Your task to perform on an android device: Open Maps and search for coffee Image 0: 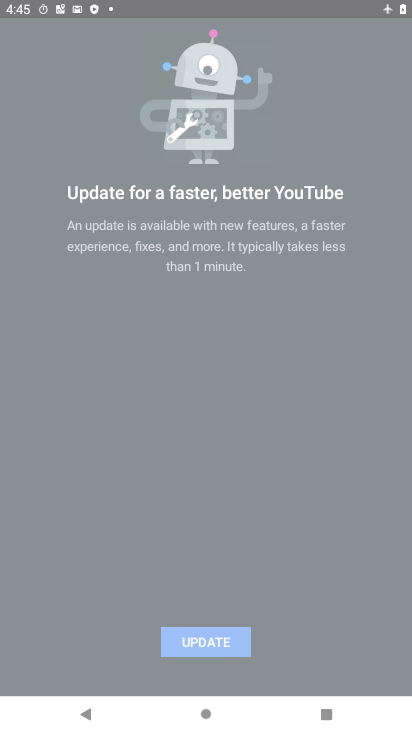
Step 0: drag from (172, 682) to (240, 192)
Your task to perform on an android device: Open Maps and search for coffee Image 1: 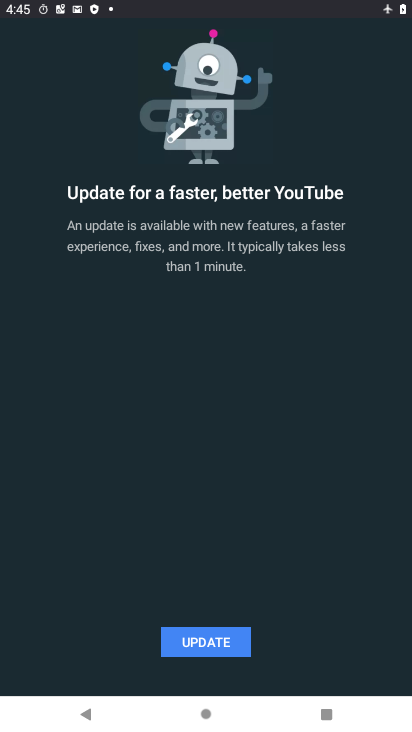
Step 1: press home button
Your task to perform on an android device: Open Maps and search for coffee Image 2: 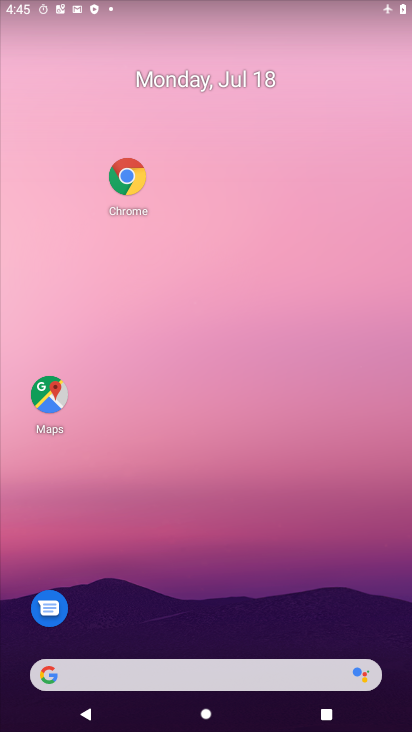
Step 2: drag from (208, 642) to (315, 113)
Your task to perform on an android device: Open Maps and search for coffee Image 3: 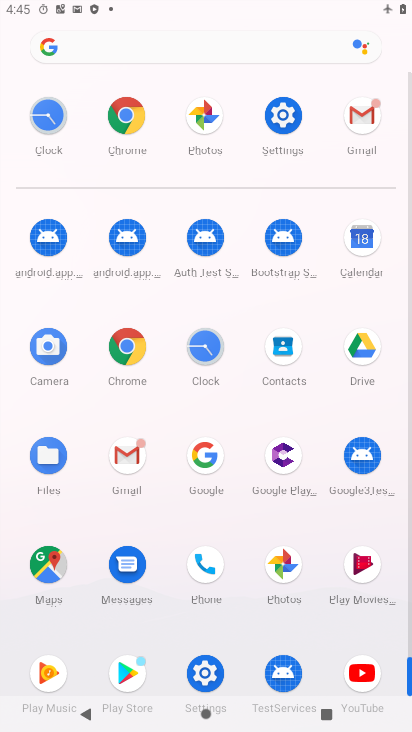
Step 3: click (34, 582)
Your task to perform on an android device: Open Maps and search for coffee Image 4: 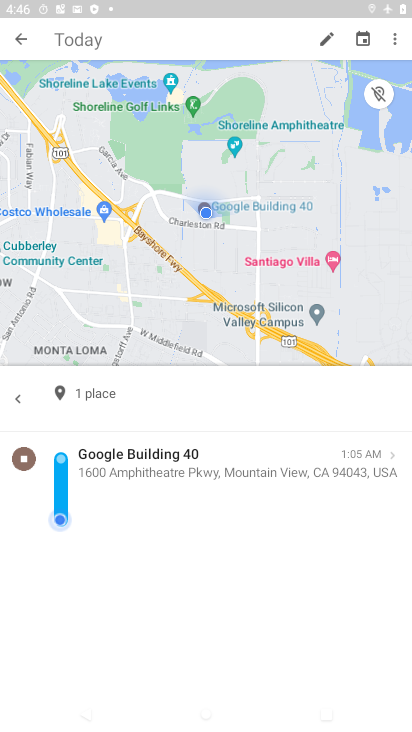
Step 4: click (26, 40)
Your task to perform on an android device: Open Maps and search for coffee Image 5: 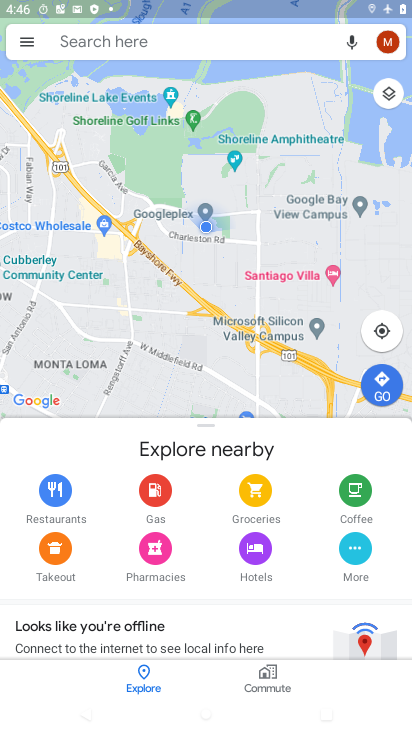
Step 5: click (150, 45)
Your task to perform on an android device: Open Maps and search for coffee Image 6: 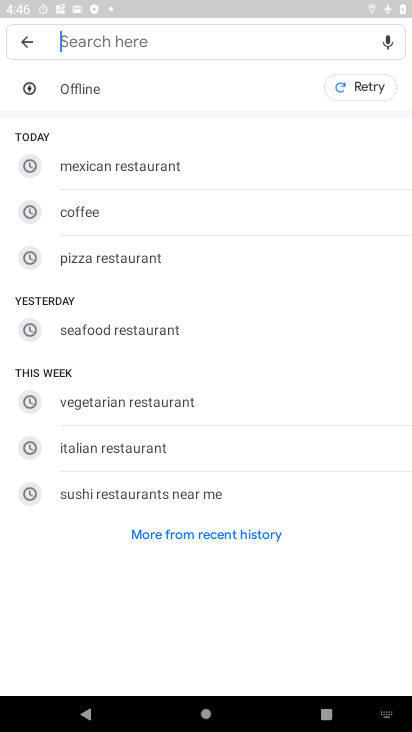
Step 6: click (120, 215)
Your task to perform on an android device: Open Maps and search for coffee Image 7: 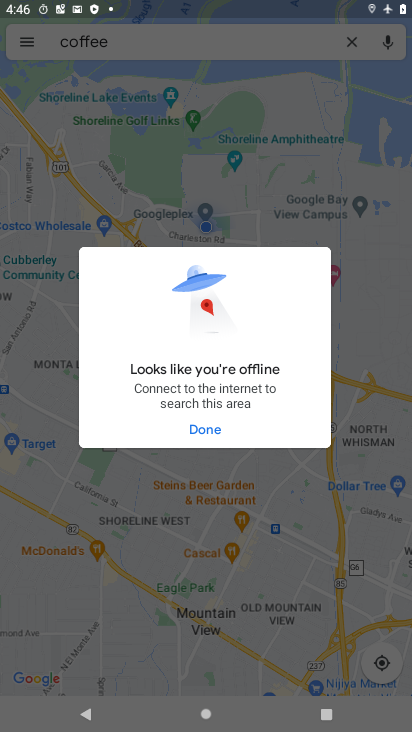
Step 7: click (197, 425)
Your task to perform on an android device: Open Maps and search for coffee Image 8: 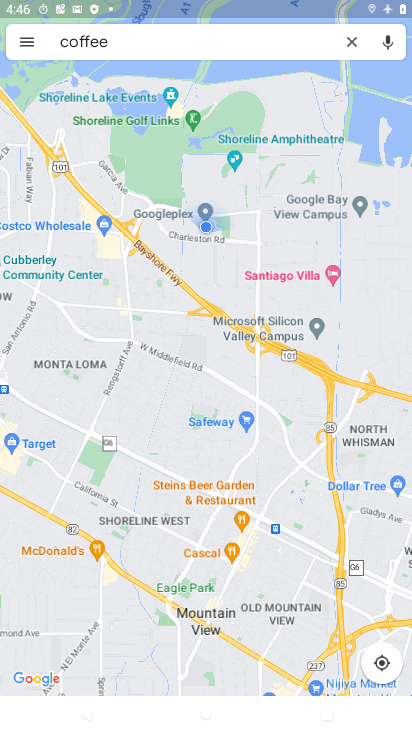
Step 8: task complete